Your task to perform on an android device: Open internet settings Image 0: 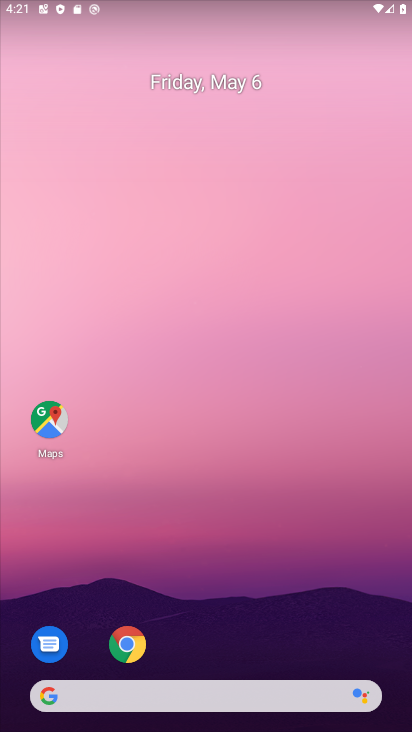
Step 0: drag from (292, 602) to (149, 17)
Your task to perform on an android device: Open internet settings Image 1: 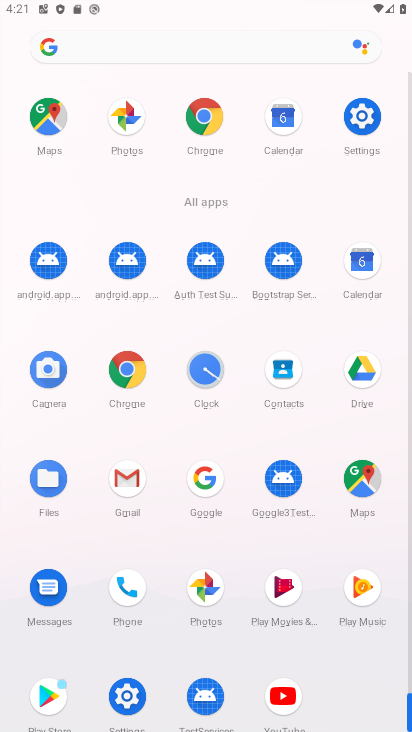
Step 1: click (198, 130)
Your task to perform on an android device: Open internet settings Image 2: 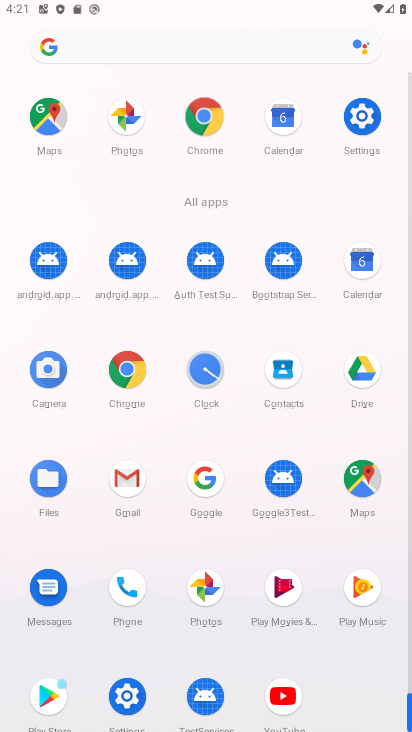
Step 2: click (198, 130)
Your task to perform on an android device: Open internet settings Image 3: 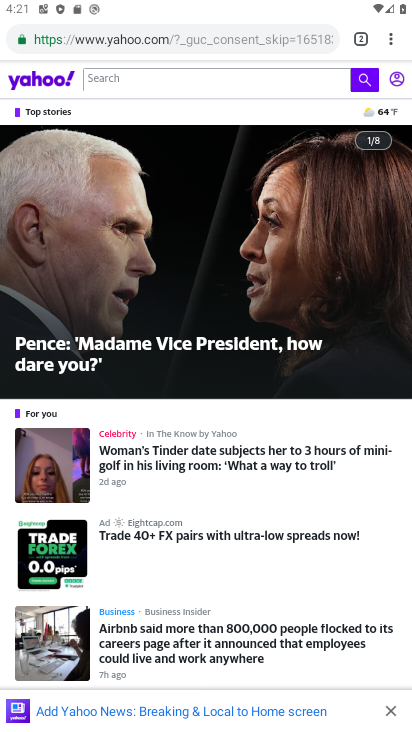
Step 3: press home button
Your task to perform on an android device: Open internet settings Image 4: 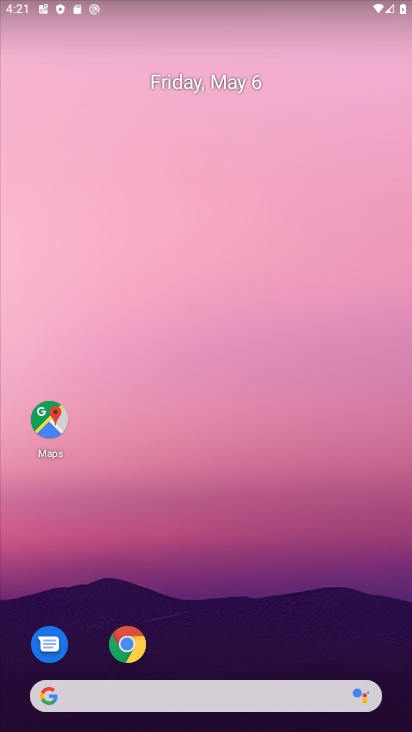
Step 4: drag from (217, 472) to (121, 112)
Your task to perform on an android device: Open internet settings Image 5: 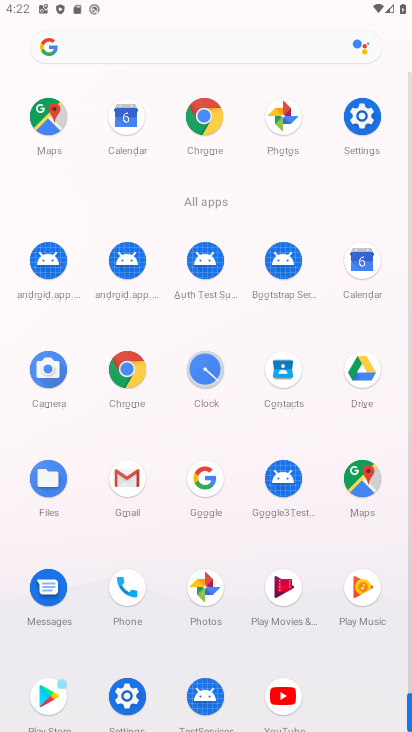
Step 5: click (364, 124)
Your task to perform on an android device: Open internet settings Image 6: 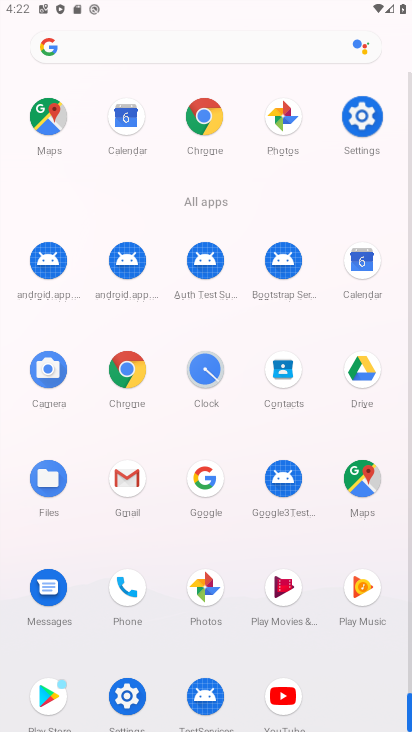
Step 6: click (364, 124)
Your task to perform on an android device: Open internet settings Image 7: 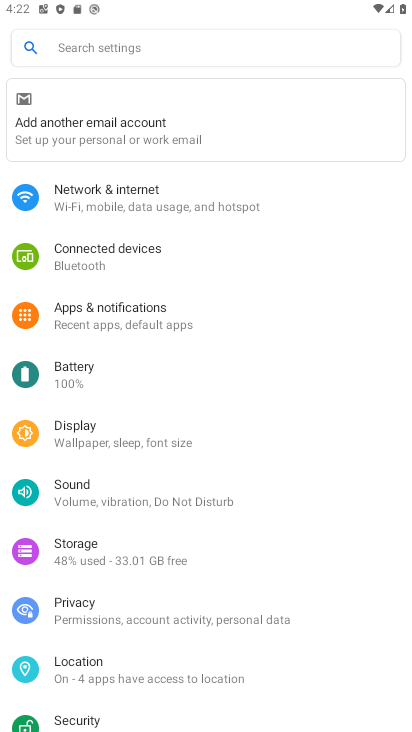
Step 7: click (126, 203)
Your task to perform on an android device: Open internet settings Image 8: 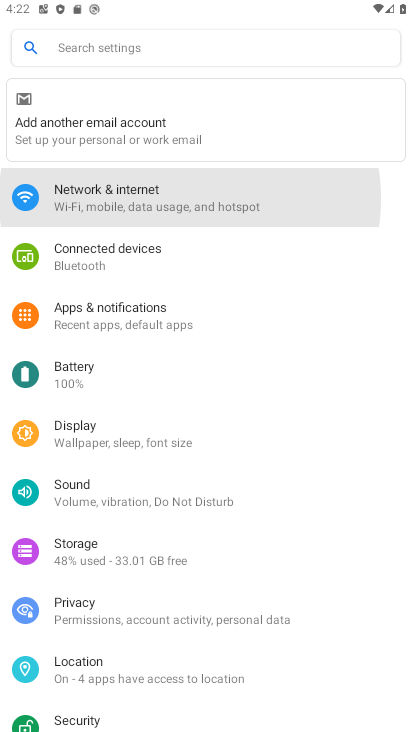
Step 8: click (126, 203)
Your task to perform on an android device: Open internet settings Image 9: 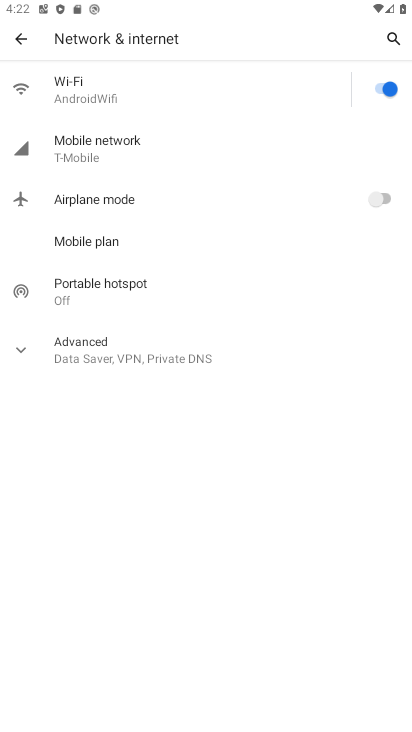
Step 9: task complete